Your task to perform on an android device: What is the news today? Image 0: 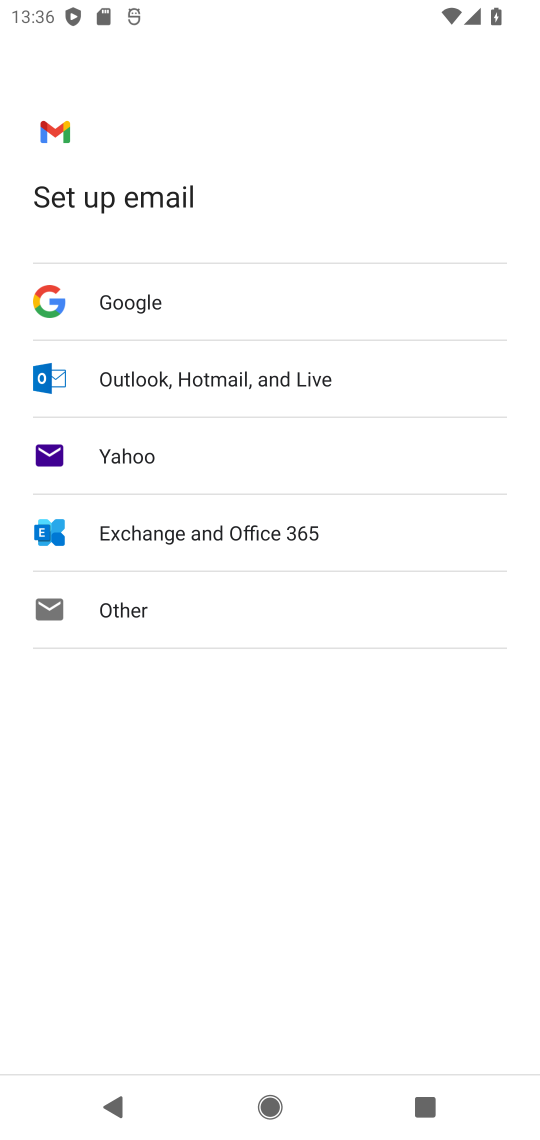
Step 0: press home button
Your task to perform on an android device: What is the news today? Image 1: 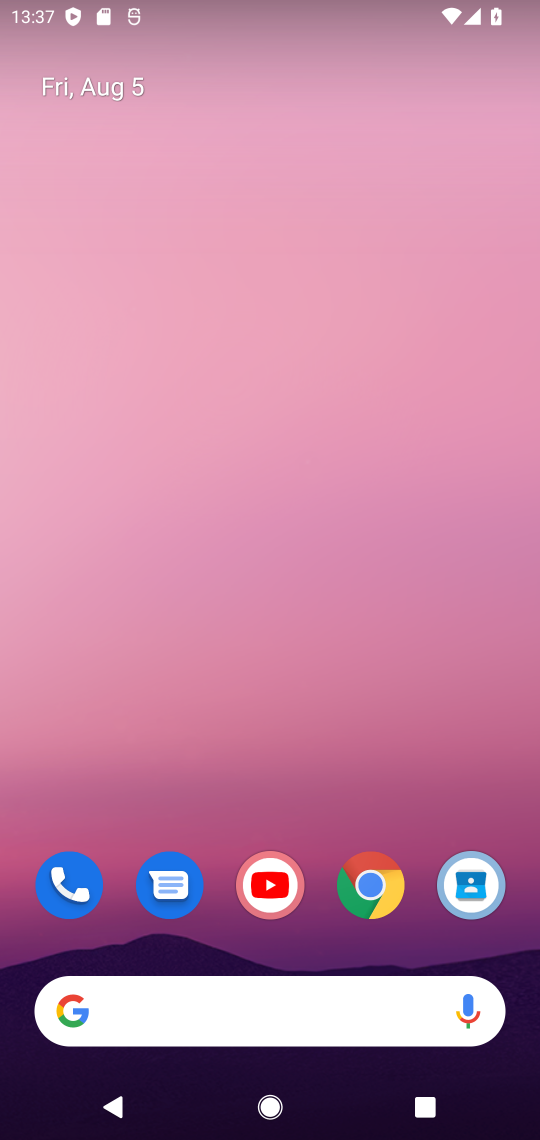
Step 1: drag from (294, 921) to (306, 295)
Your task to perform on an android device: What is the news today? Image 2: 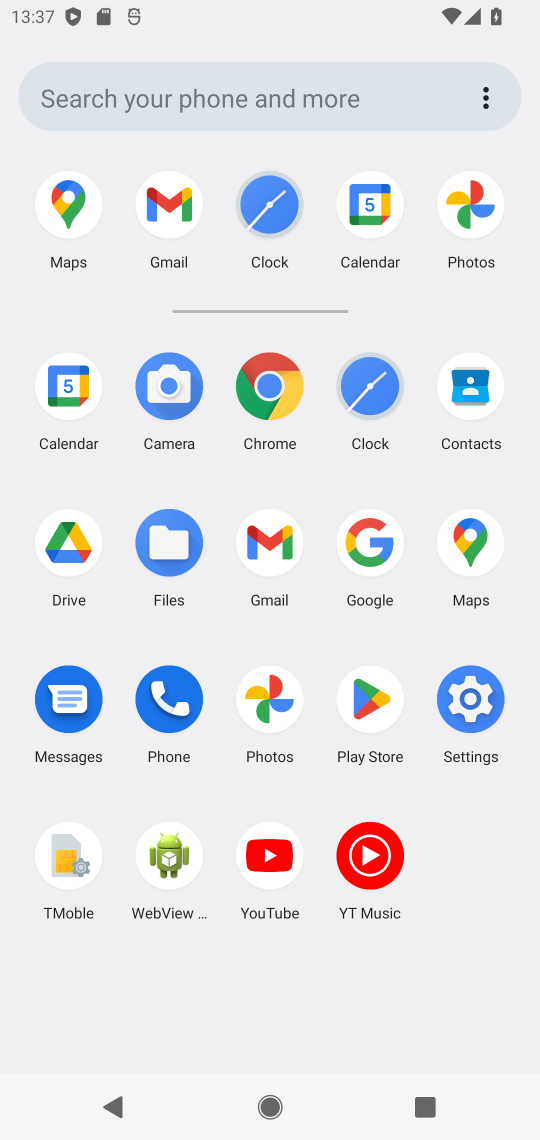
Step 2: click (371, 574)
Your task to perform on an android device: What is the news today? Image 3: 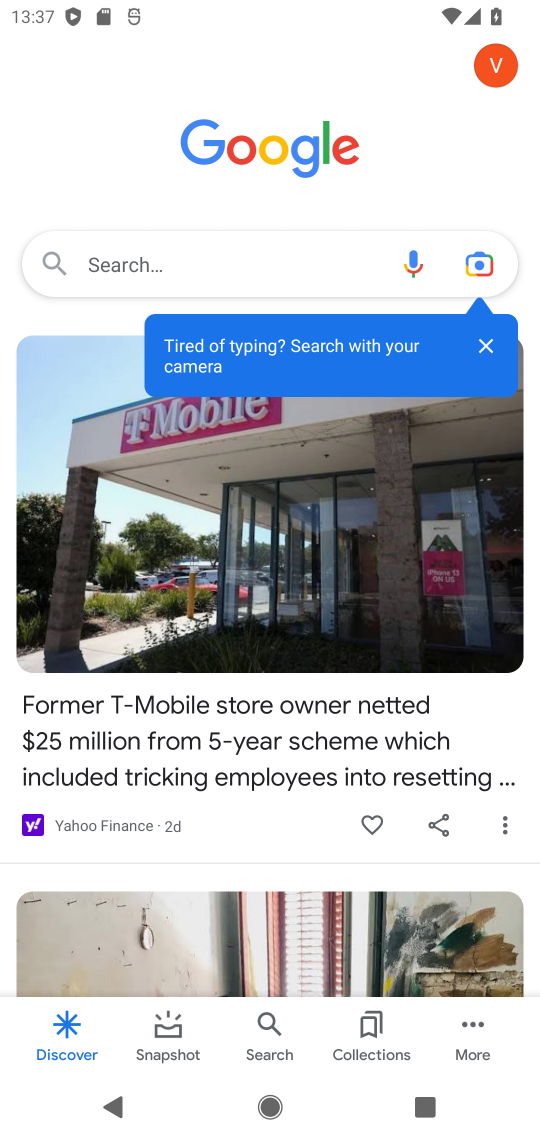
Step 3: click (192, 255)
Your task to perform on an android device: What is the news today? Image 4: 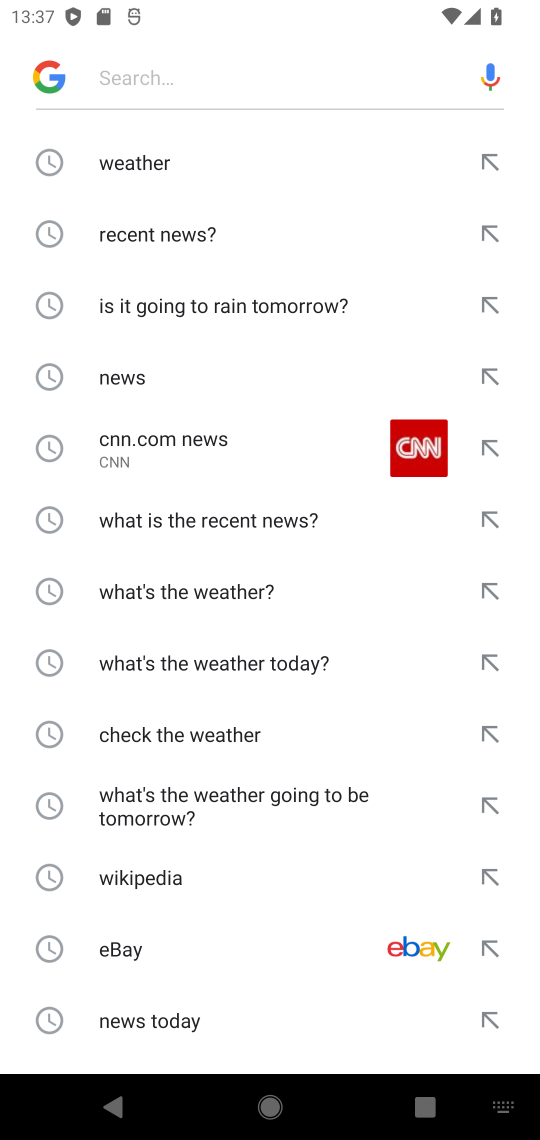
Step 4: click (162, 1026)
Your task to perform on an android device: What is the news today? Image 5: 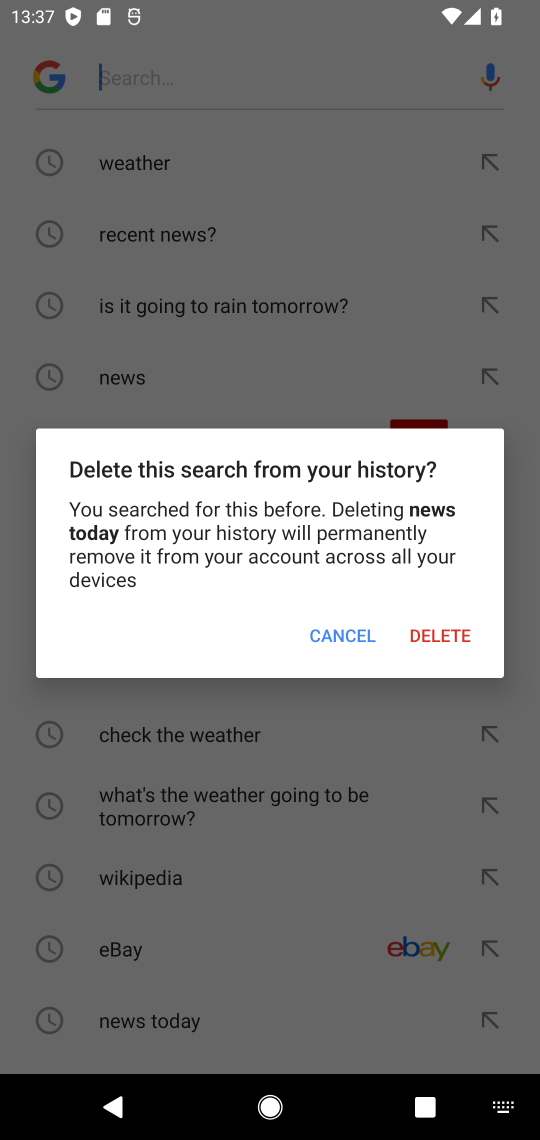
Step 5: click (341, 628)
Your task to perform on an android device: What is the news today? Image 6: 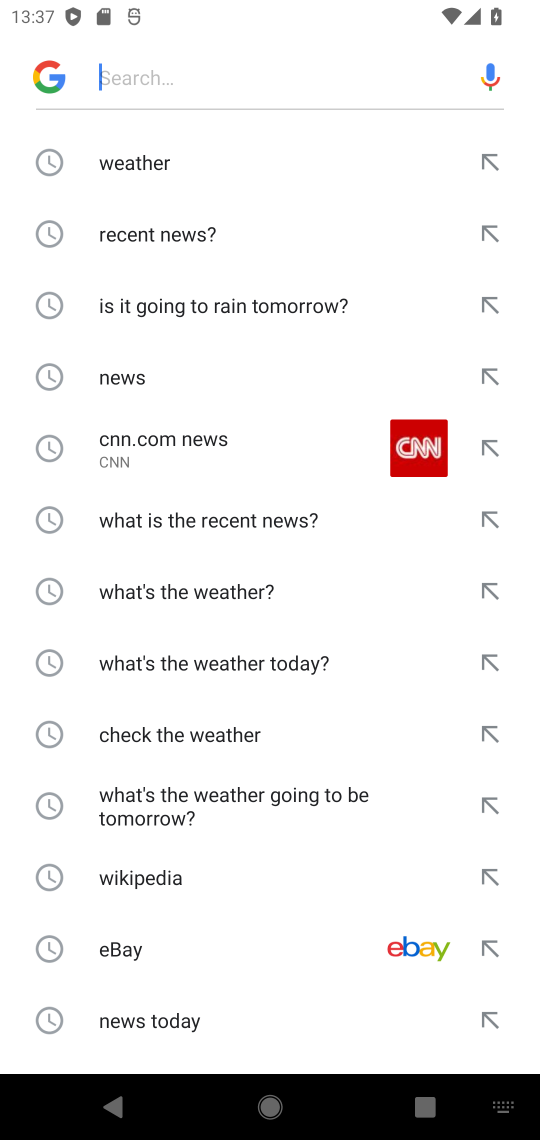
Step 6: click (163, 1019)
Your task to perform on an android device: What is the news today? Image 7: 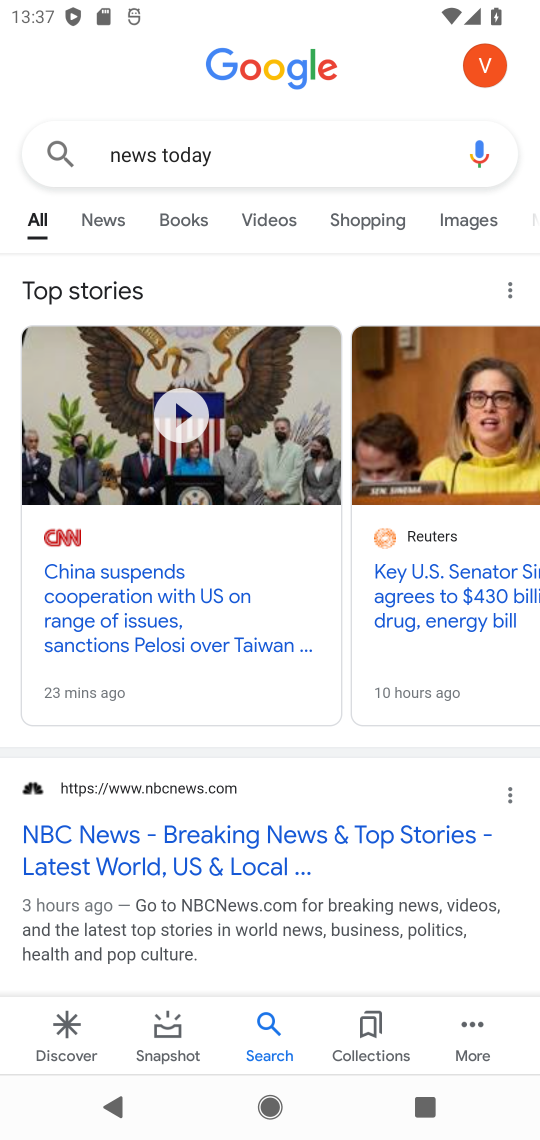
Step 7: task complete